Your task to perform on an android device: check battery use Image 0: 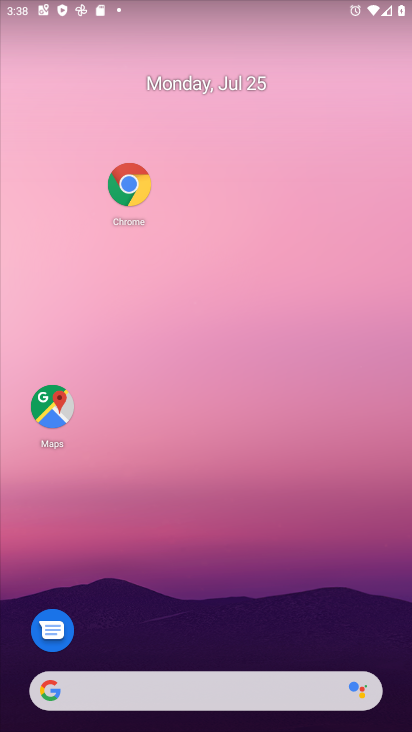
Step 0: drag from (237, 645) to (148, 98)
Your task to perform on an android device: check battery use Image 1: 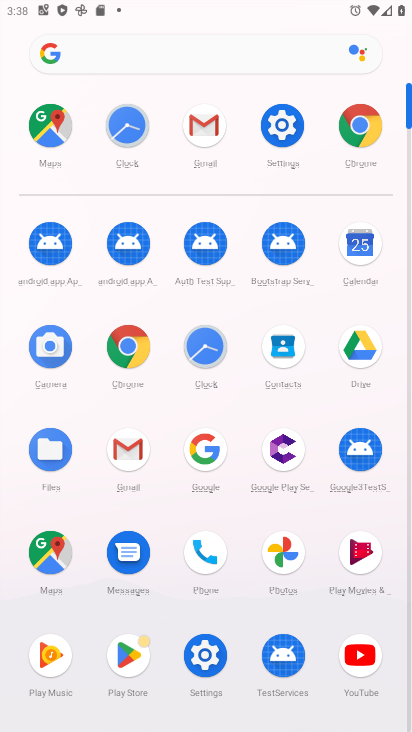
Step 1: click (274, 137)
Your task to perform on an android device: check battery use Image 2: 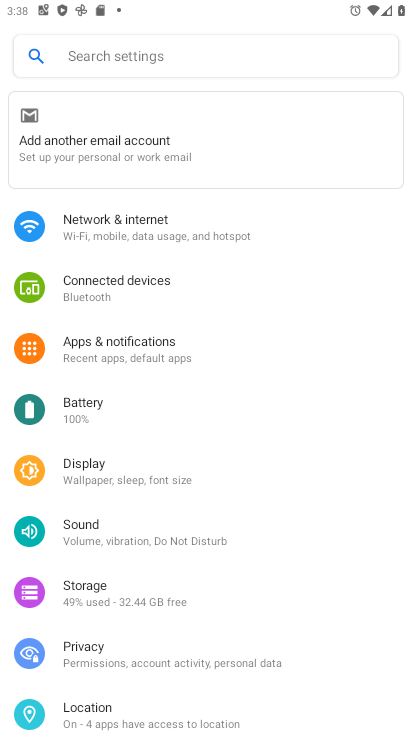
Step 2: click (148, 397)
Your task to perform on an android device: check battery use Image 3: 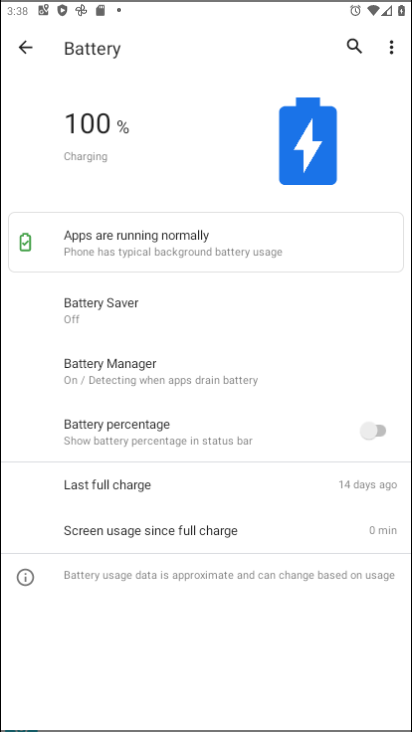
Step 3: task complete